Your task to perform on an android device: change the clock display to analog Image 0: 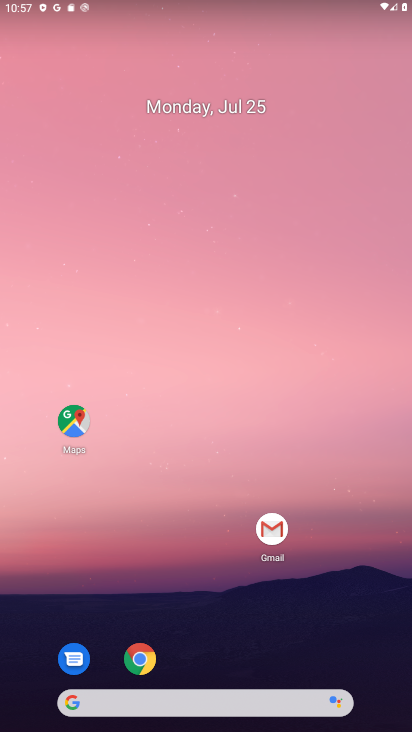
Step 0: drag from (210, 729) to (278, 203)
Your task to perform on an android device: change the clock display to analog Image 1: 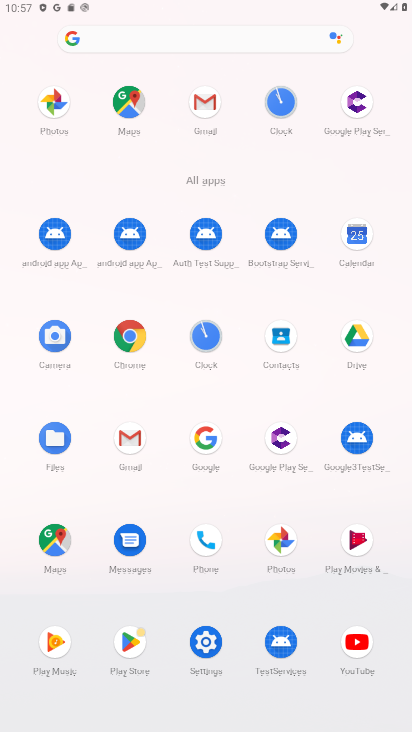
Step 1: click (204, 329)
Your task to perform on an android device: change the clock display to analog Image 2: 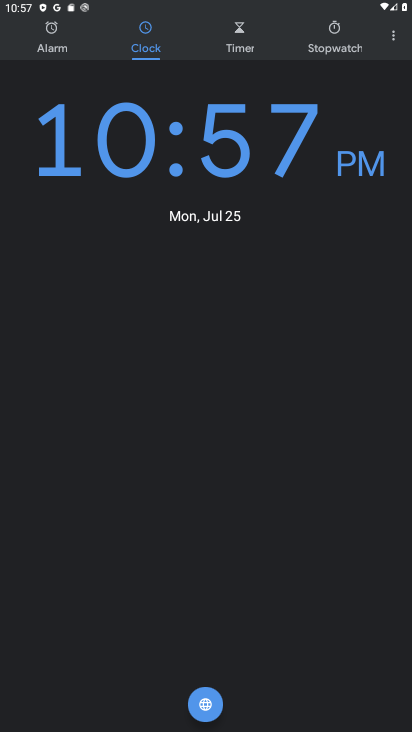
Step 2: click (400, 43)
Your task to perform on an android device: change the clock display to analog Image 3: 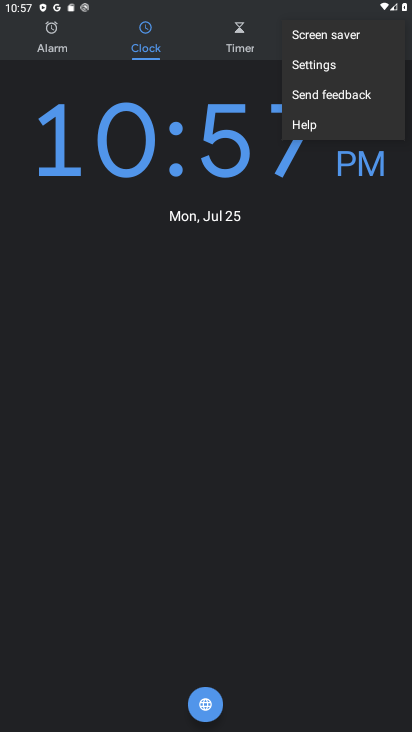
Step 3: click (335, 62)
Your task to perform on an android device: change the clock display to analog Image 4: 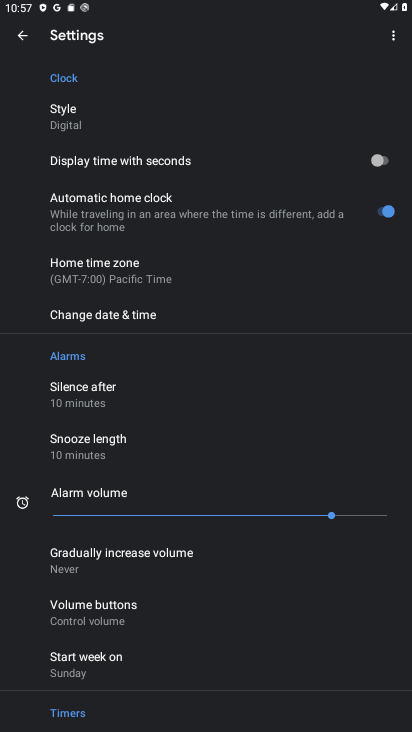
Step 4: click (102, 131)
Your task to perform on an android device: change the clock display to analog Image 5: 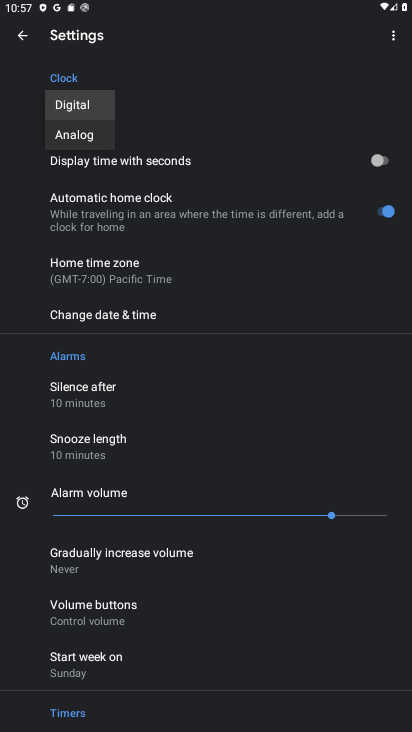
Step 5: click (65, 145)
Your task to perform on an android device: change the clock display to analog Image 6: 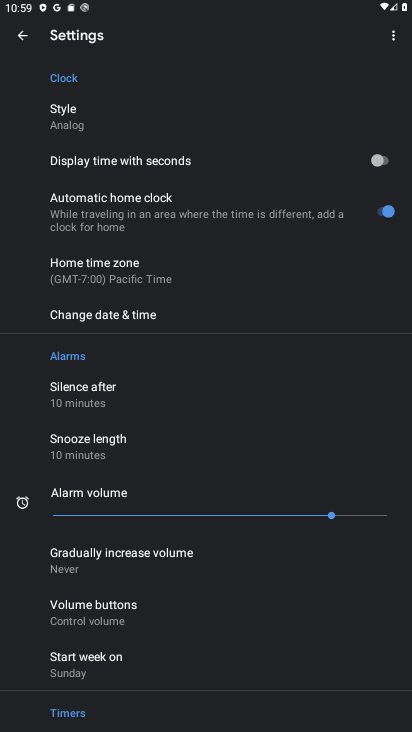
Step 6: task complete